Your task to perform on an android device: Open Google Image 0: 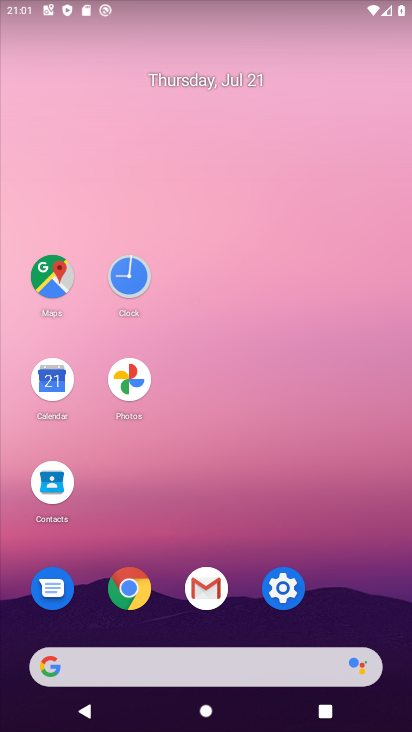
Step 0: click (190, 656)
Your task to perform on an android device: Open Google Image 1: 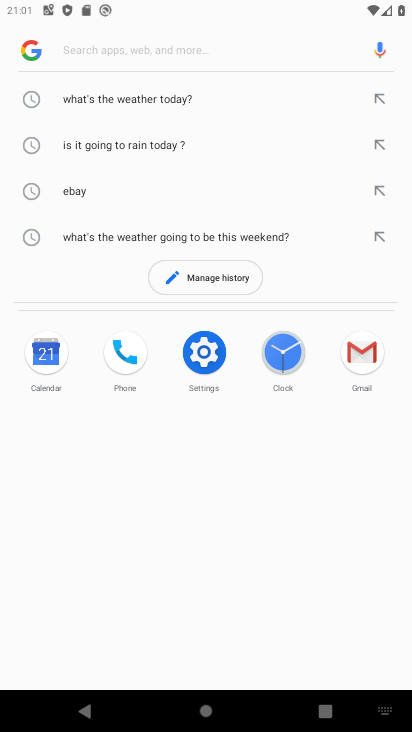
Step 1: click (37, 43)
Your task to perform on an android device: Open Google Image 2: 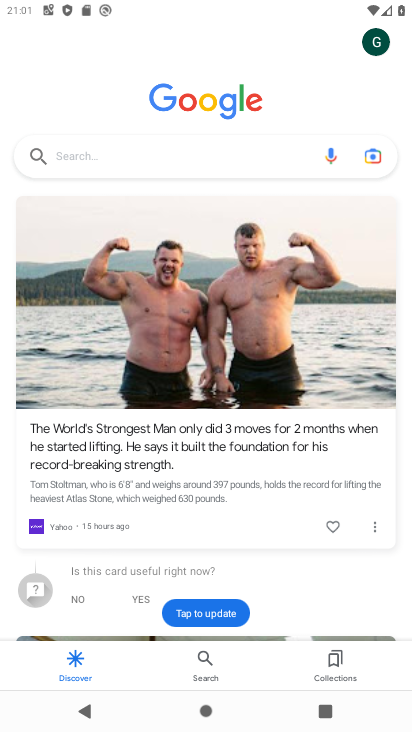
Step 2: task complete